Your task to perform on an android device: Open the web browser Image 0: 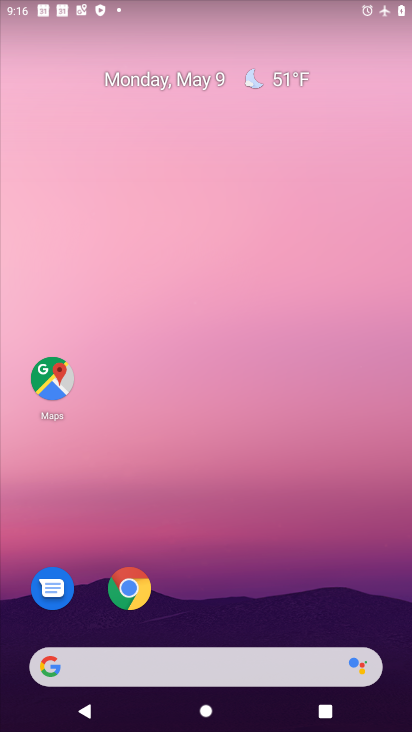
Step 0: click (126, 576)
Your task to perform on an android device: Open the web browser Image 1: 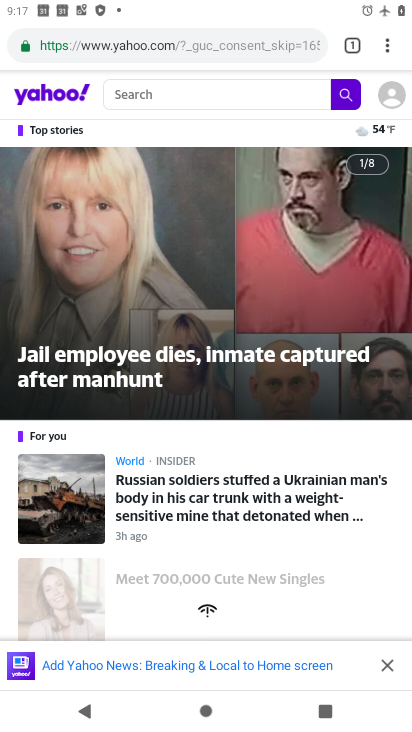
Step 1: task complete